Your task to perform on an android device: toggle notifications settings in the gmail app Image 0: 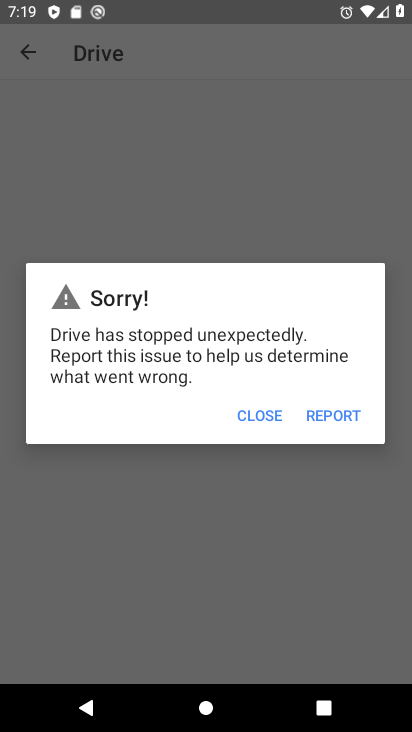
Step 0: press home button
Your task to perform on an android device: toggle notifications settings in the gmail app Image 1: 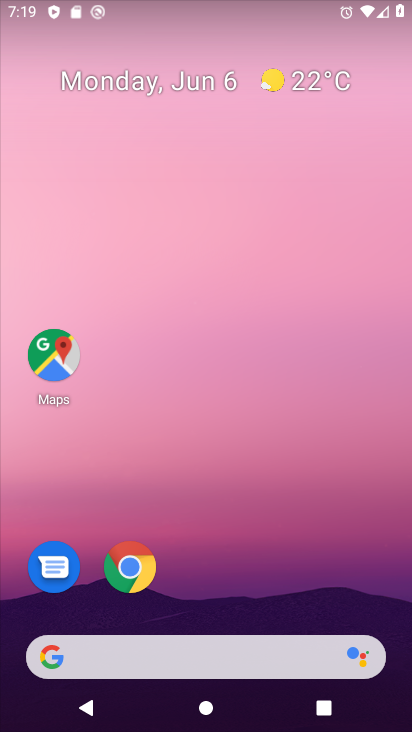
Step 1: drag from (276, 573) to (356, 120)
Your task to perform on an android device: toggle notifications settings in the gmail app Image 2: 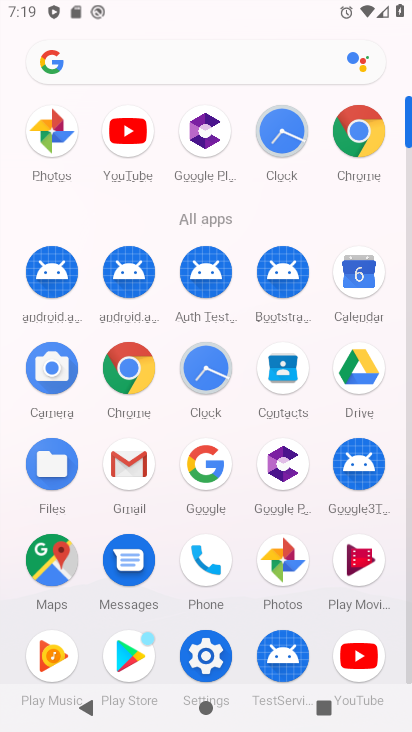
Step 2: drag from (114, 465) to (138, 368)
Your task to perform on an android device: toggle notifications settings in the gmail app Image 3: 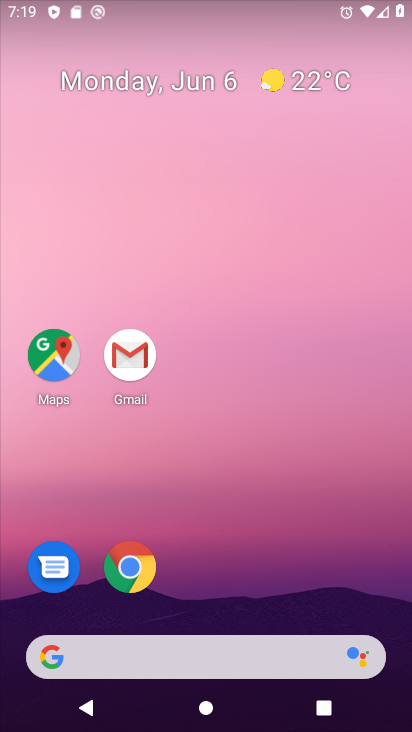
Step 3: drag from (202, 466) to (217, 127)
Your task to perform on an android device: toggle notifications settings in the gmail app Image 4: 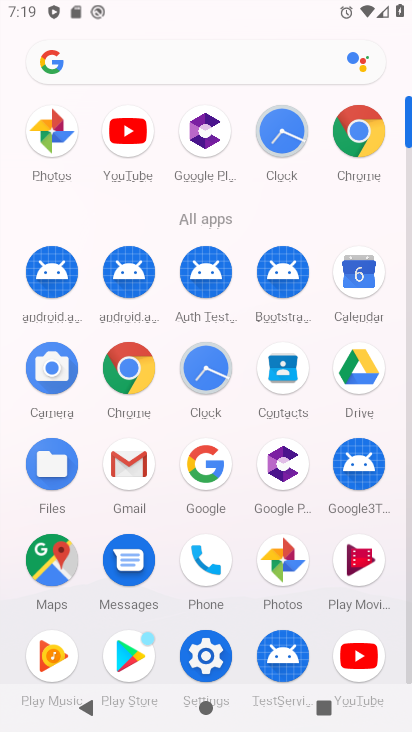
Step 4: drag from (211, 465) to (212, 372)
Your task to perform on an android device: toggle notifications settings in the gmail app Image 5: 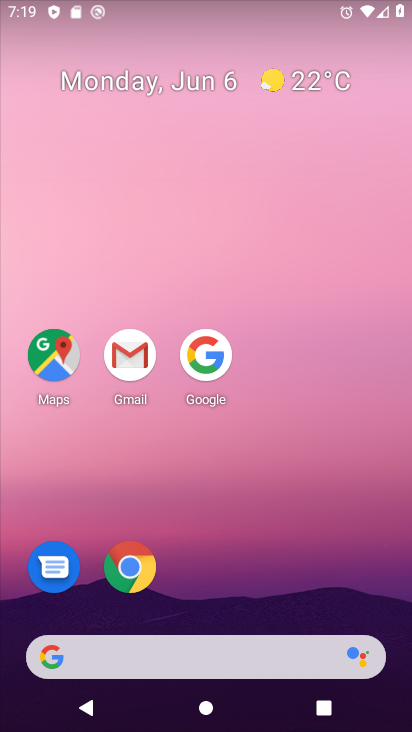
Step 5: click (143, 364)
Your task to perform on an android device: toggle notifications settings in the gmail app Image 6: 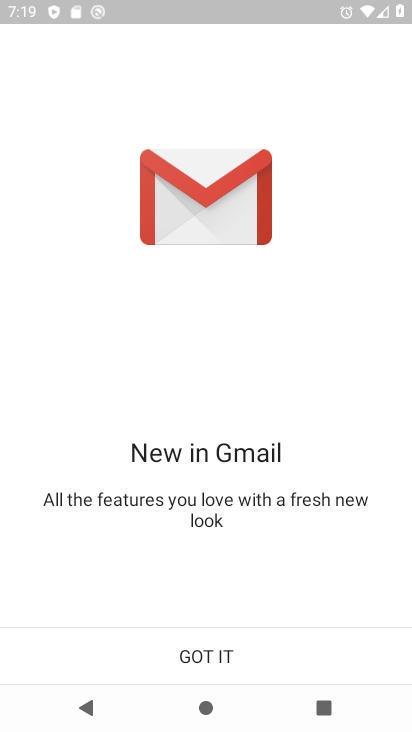
Step 6: click (184, 650)
Your task to perform on an android device: toggle notifications settings in the gmail app Image 7: 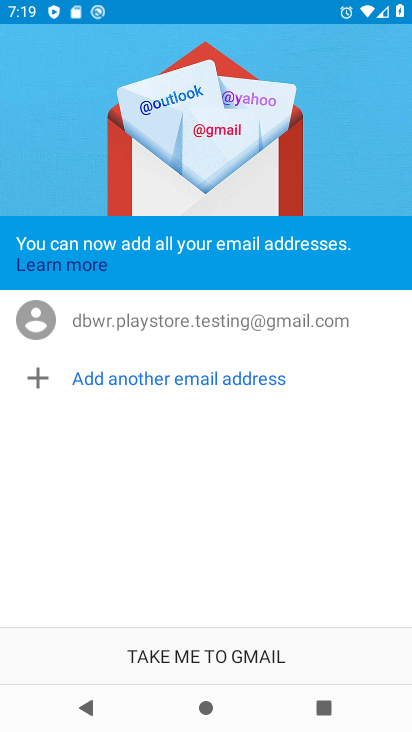
Step 7: click (231, 652)
Your task to perform on an android device: toggle notifications settings in the gmail app Image 8: 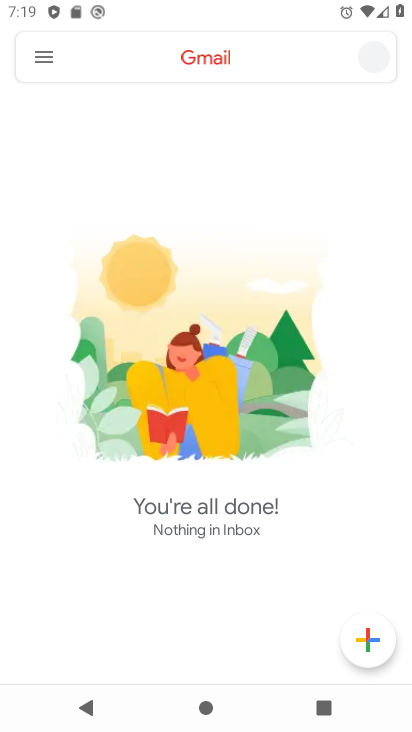
Step 8: click (45, 51)
Your task to perform on an android device: toggle notifications settings in the gmail app Image 9: 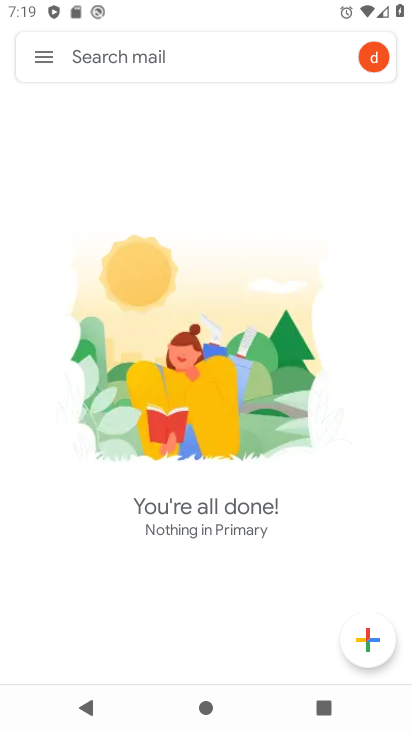
Step 9: click (46, 60)
Your task to perform on an android device: toggle notifications settings in the gmail app Image 10: 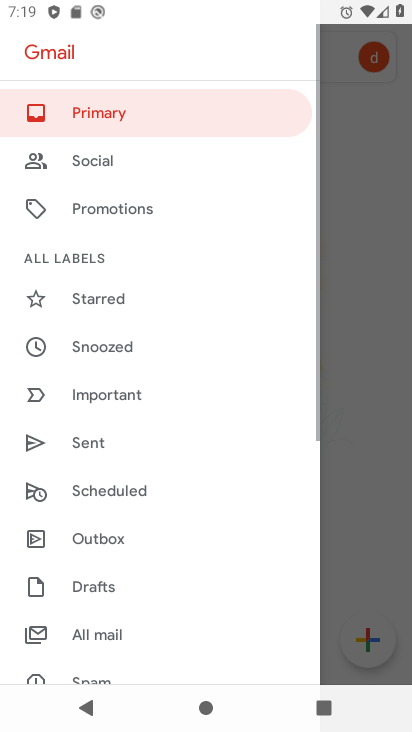
Step 10: drag from (140, 618) to (147, 133)
Your task to perform on an android device: toggle notifications settings in the gmail app Image 11: 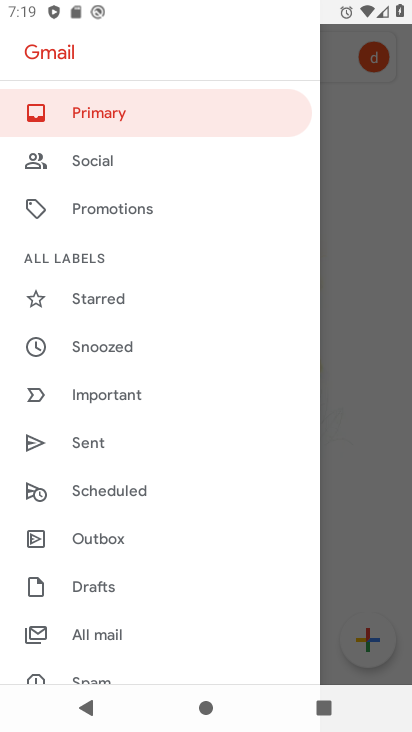
Step 11: drag from (121, 649) to (192, 271)
Your task to perform on an android device: toggle notifications settings in the gmail app Image 12: 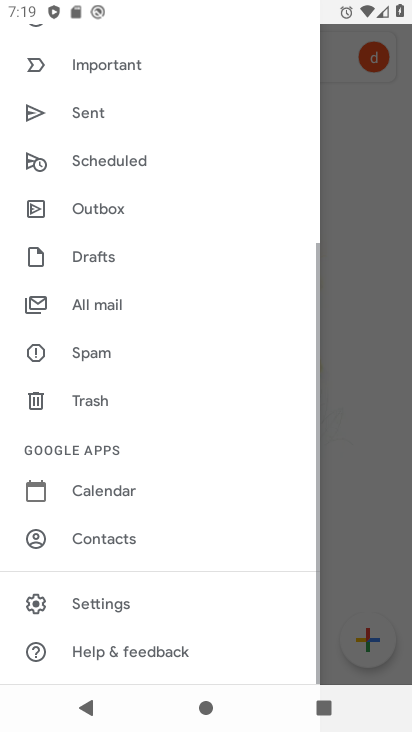
Step 12: click (163, 594)
Your task to perform on an android device: toggle notifications settings in the gmail app Image 13: 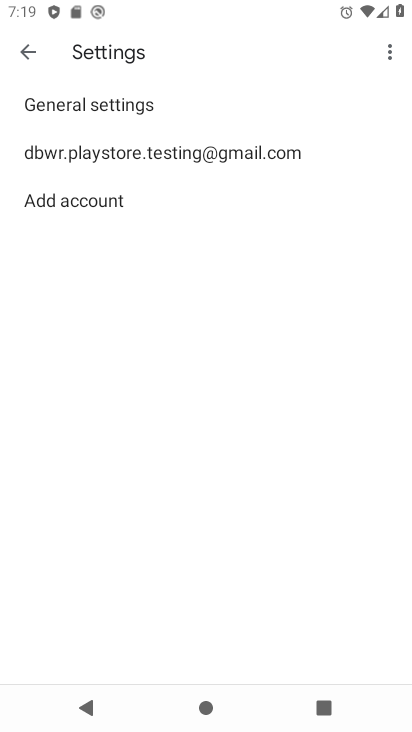
Step 13: click (207, 154)
Your task to perform on an android device: toggle notifications settings in the gmail app Image 14: 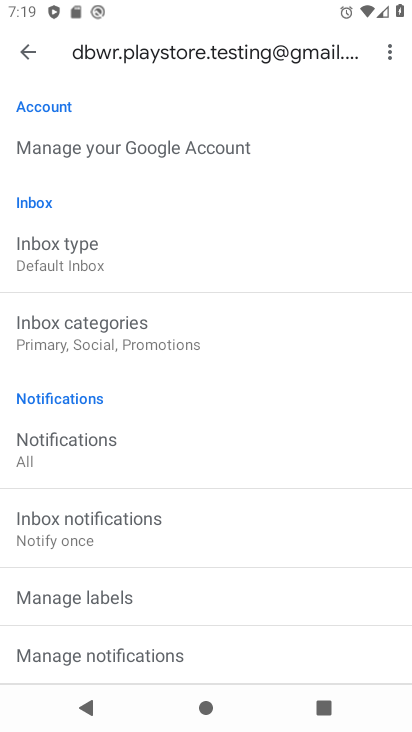
Step 14: click (180, 457)
Your task to perform on an android device: toggle notifications settings in the gmail app Image 15: 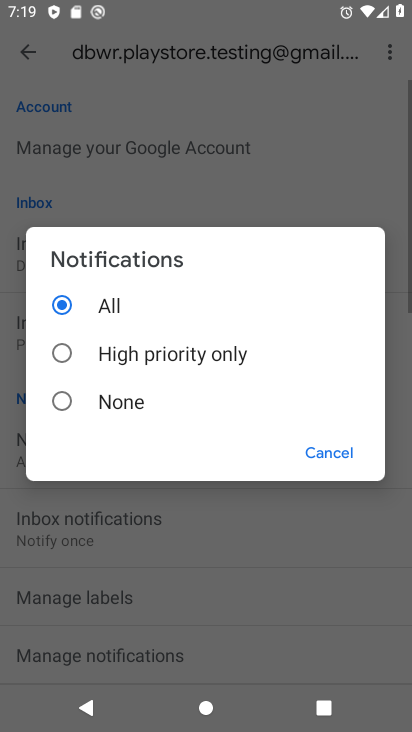
Step 15: click (192, 349)
Your task to perform on an android device: toggle notifications settings in the gmail app Image 16: 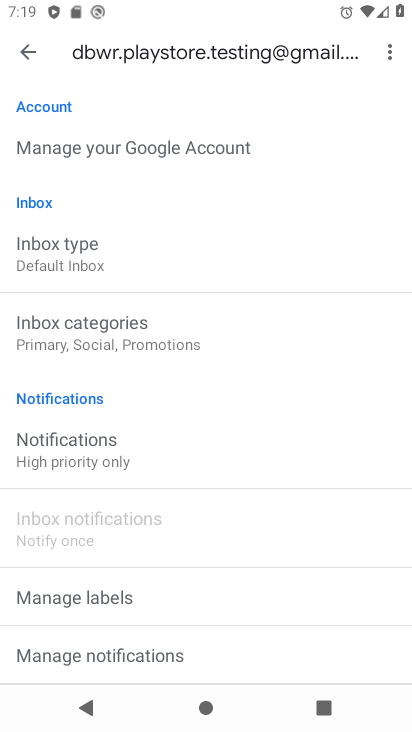
Step 16: task complete